Your task to perform on an android device: turn off location Image 0: 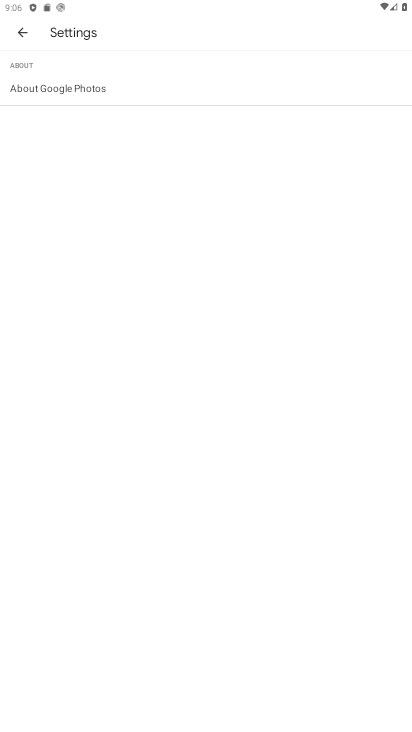
Step 0: press home button
Your task to perform on an android device: turn off location Image 1: 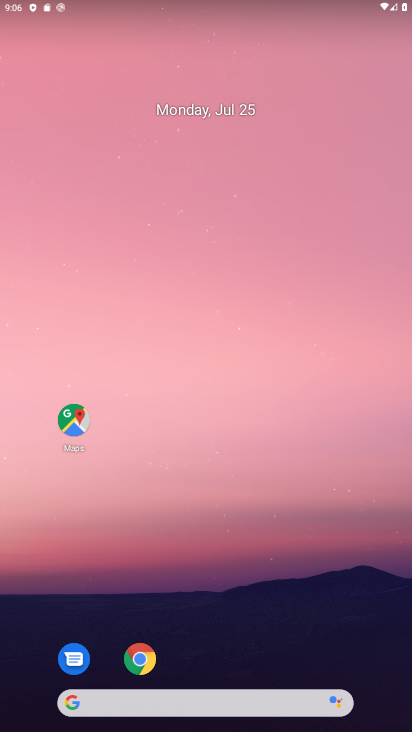
Step 1: drag from (242, 652) to (273, 42)
Your task to perform on an android device: turn off location Image 2: 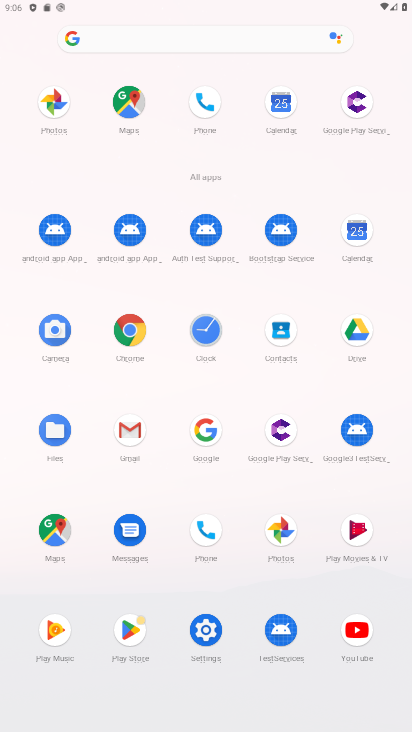
Step 2: click (213, 632)
Your task to perform on an android device: turn off location Image 3: 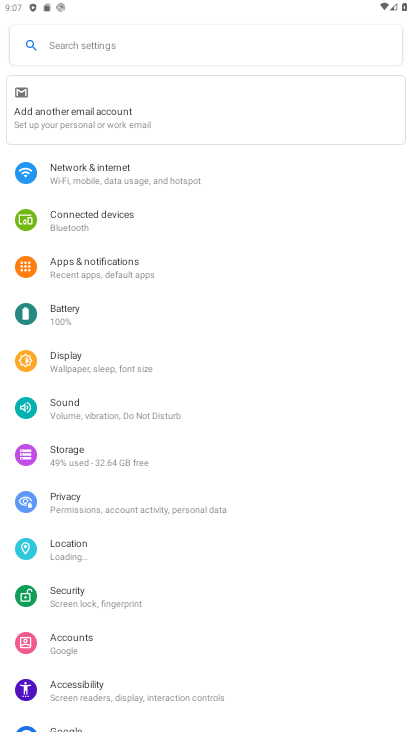
Step 3: click (101, 558)
Your task to perform on an android device: turn off location Image 4: 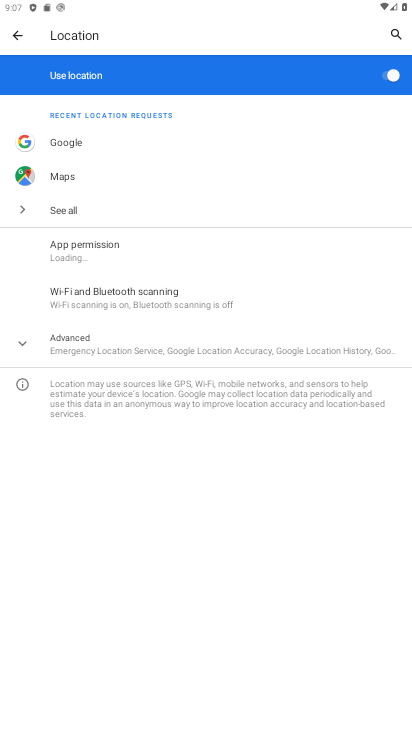
Step 4: click (358, 76)
Your task to perform on an android device: turn off location Image 5: 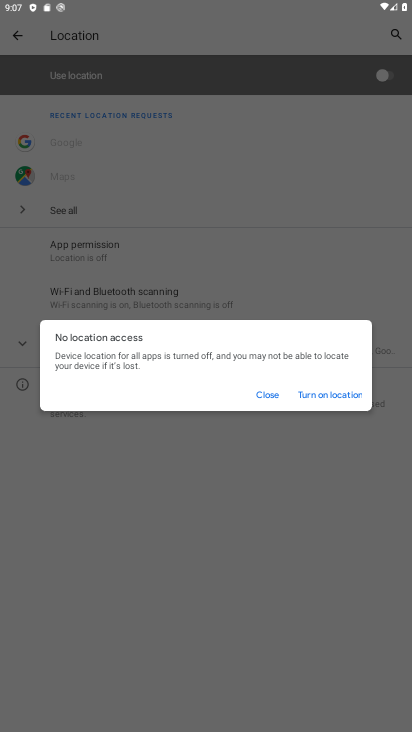
Step 5: task complete